Your task to perform on an android device: check storage Image 0: 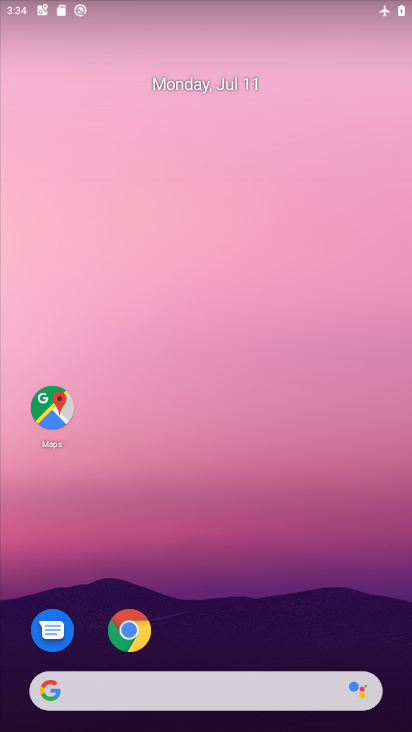
Step 0: drag from (251, 662) to (234, 176)
Your task to perform on an android device: check storage Image 1: 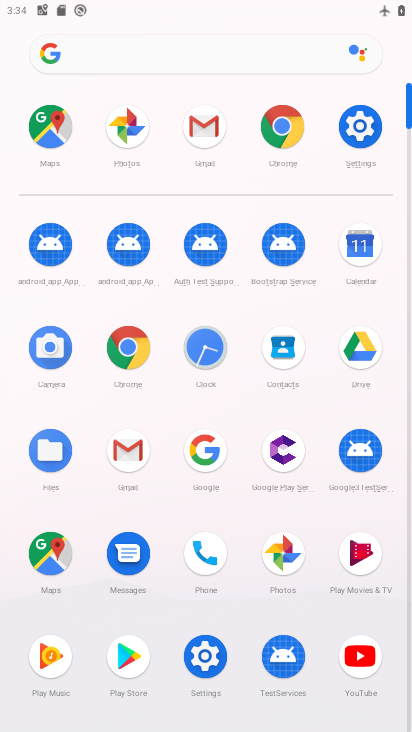
Step 1: click (369, 115)
Your task to perform on an android device: check storage Image 2: 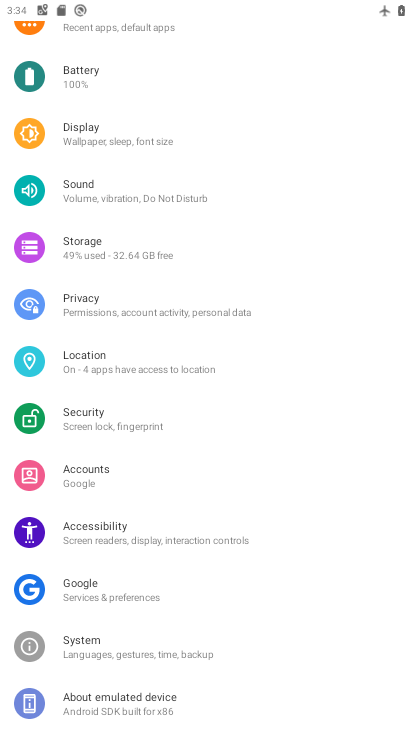
Step 2: click (110, 249)
Your task to perform on an android device: check storage Image 3: 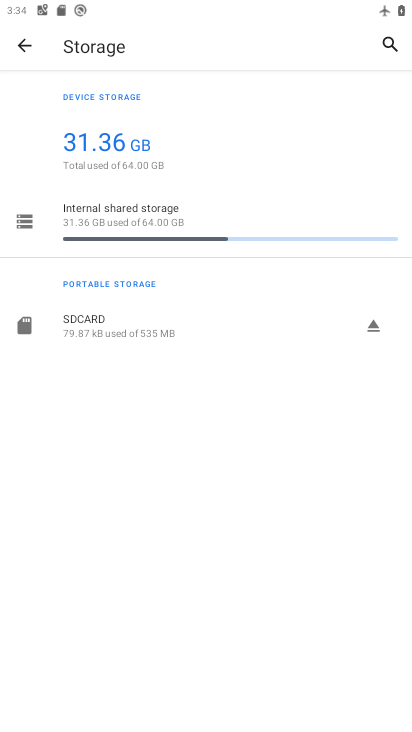
Step 3: task complete